Your task to perform on an android device: uninstall "Upside-Cash back on gas & food" Image 0: 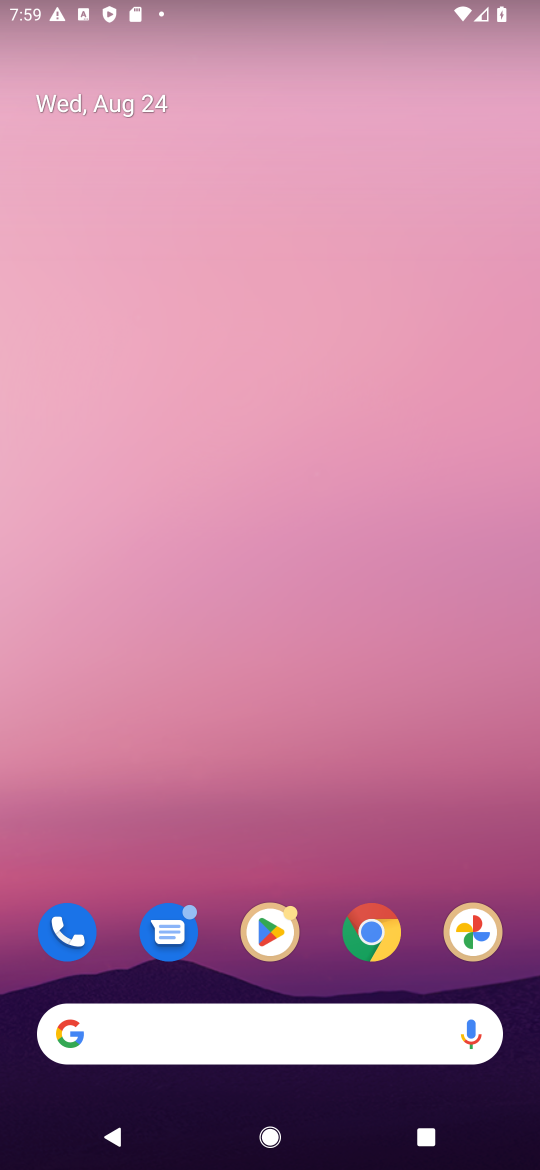
Step 0: drag from (172, 503) to (191, 31)
Your task to perform on an android device: uninstall "Upside-Cash back on gas & food" Image 1: 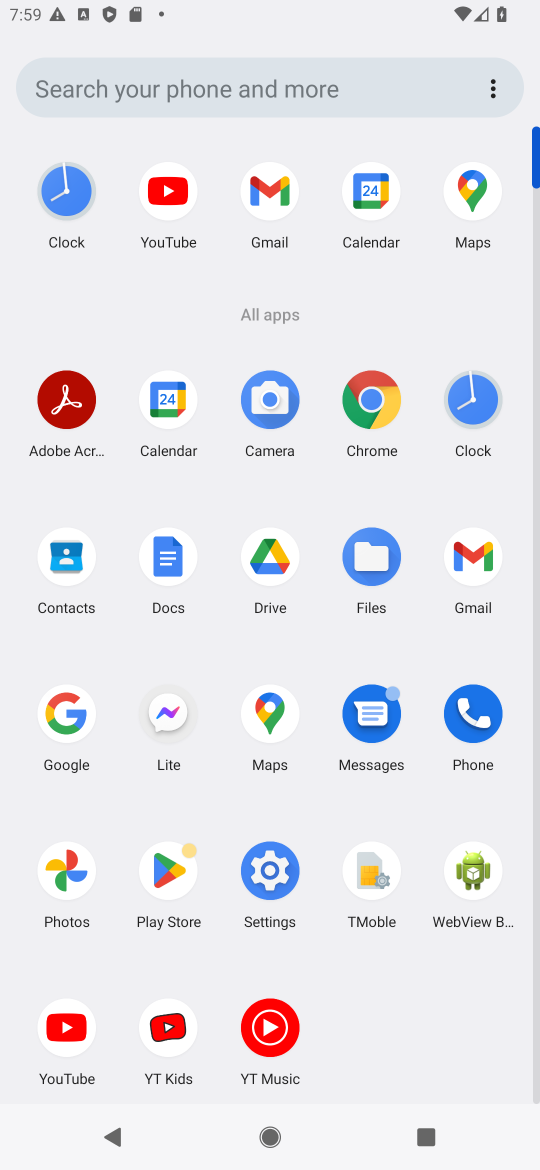
Step 1: click (174, 873)
Your task to perform on an android device: uninstall "Upside-Cash back on gas & food" Image 2: 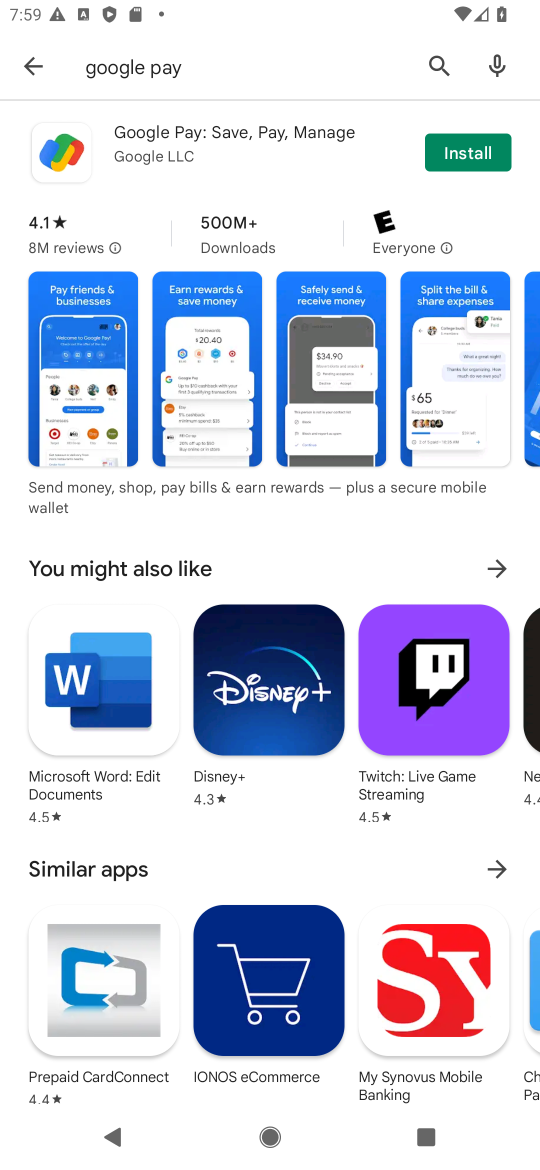
Step 2: click (197, 74)
Your task to perform on an android device: uninstall "Upside-Cash back on gas & food" Image 3: 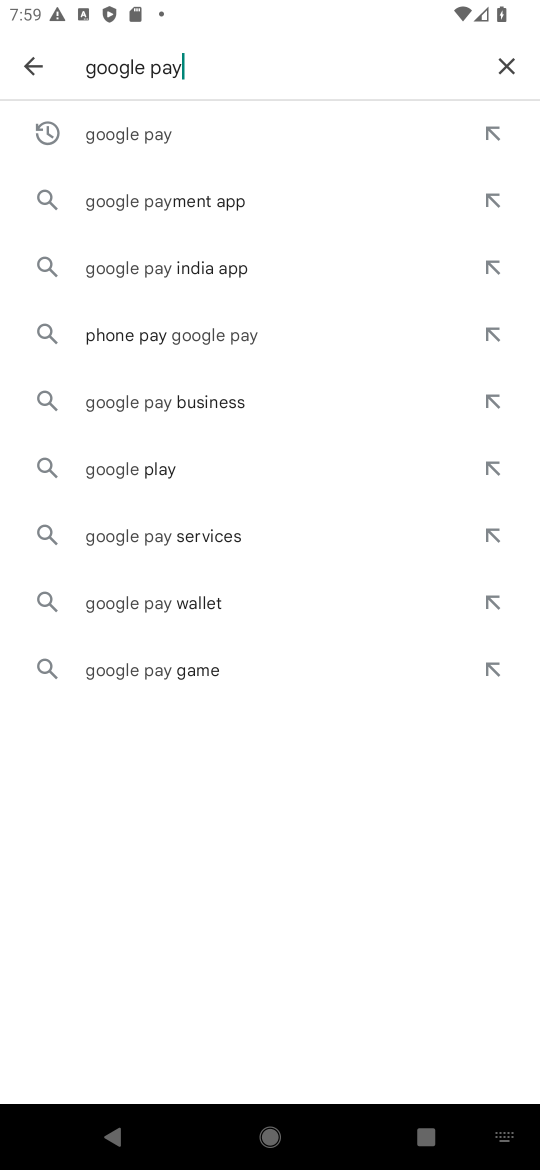
Step 3: click (503, 62)
Your task to perform on an android device: uninstall "Upside-Cash back on gas & food" Image 4: 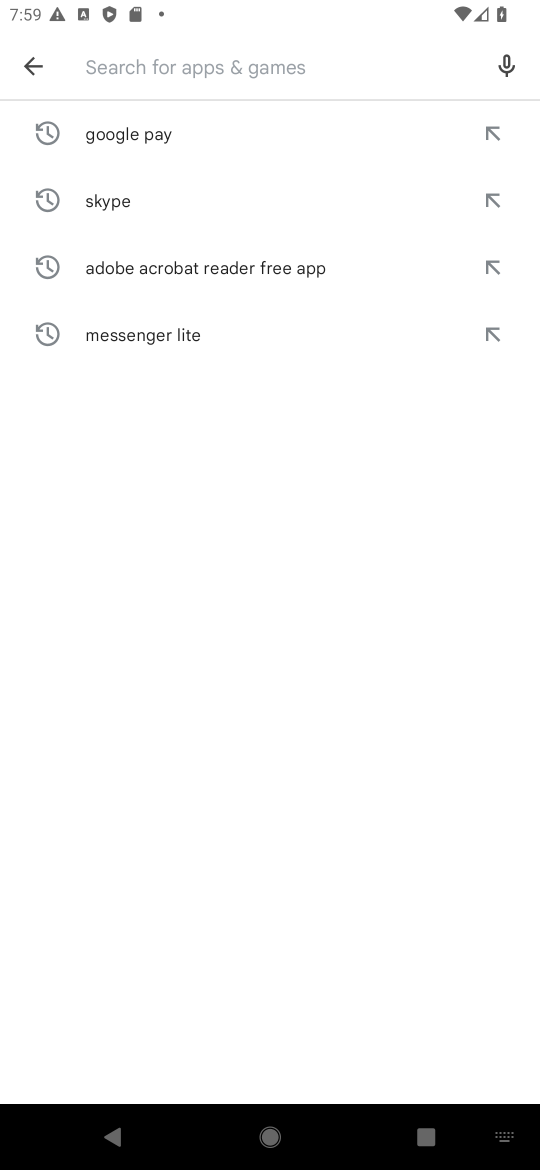
Step 4: type "upside "
Your task to perform on an android device: uninstall "Upside-Cash back on gas & food" Image 5: 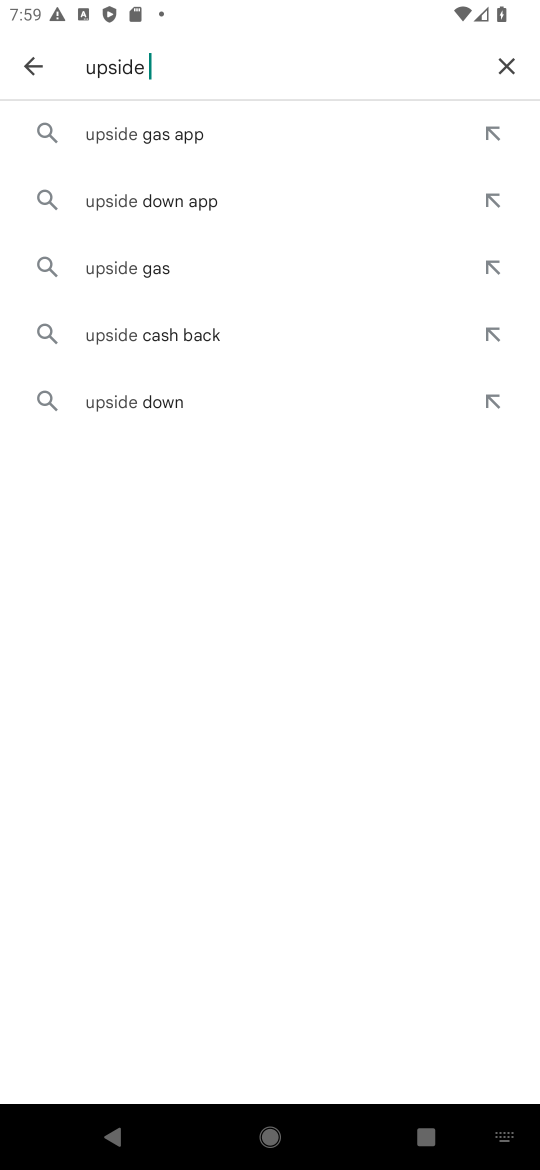
Step 5: click (190, 333)
Your task to perform on an android device: uninstall "Upside-Cash back on gas & food" Image 6: 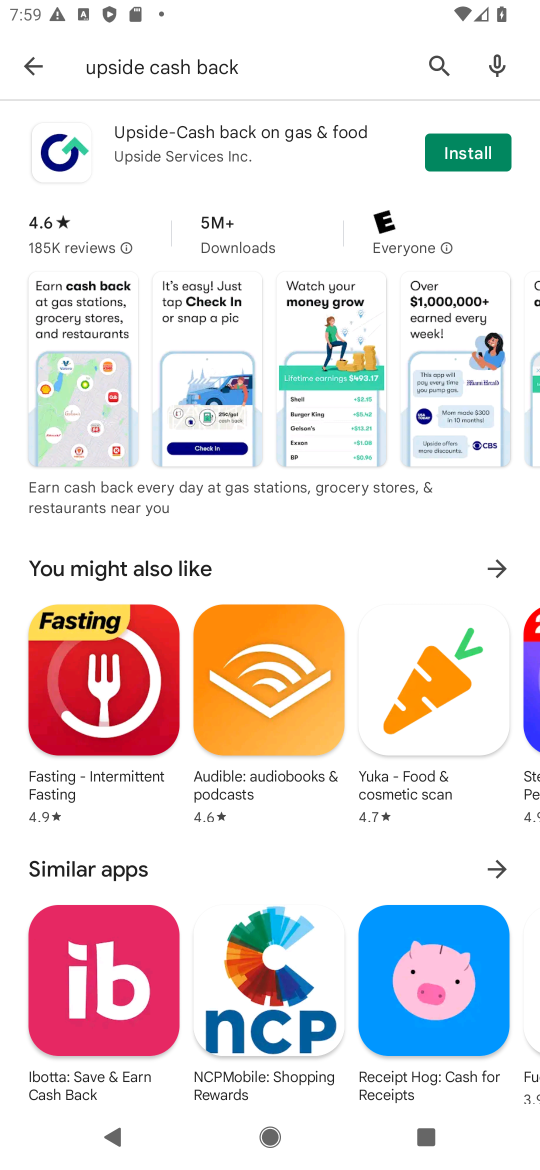
Step 6: task complete